Your task to perform on an android device: set the timer Image 0: 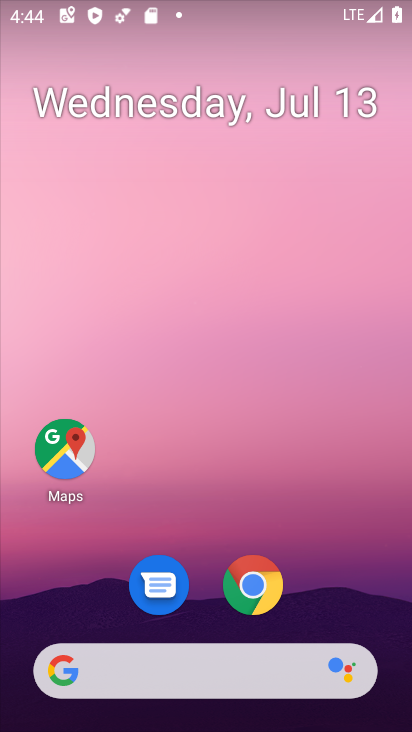
Step 0: press home button
Your task to perform on an android device: set the timer Image 1: 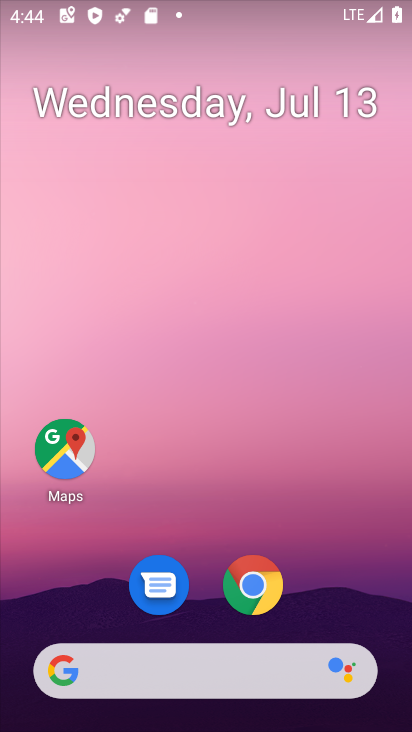
Step 1: drag from (312, 563) to (307, 89)
Your task to perform on an android device: set the timer Image 2: 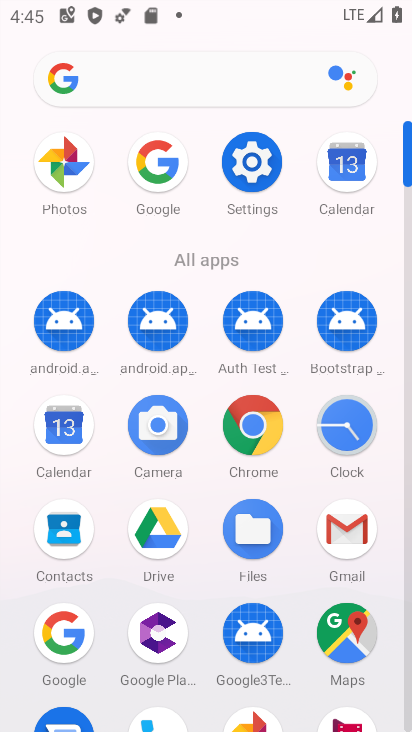
Step 2: click (347, 411)
Your task to perform on an android device: set the timer Image 3: 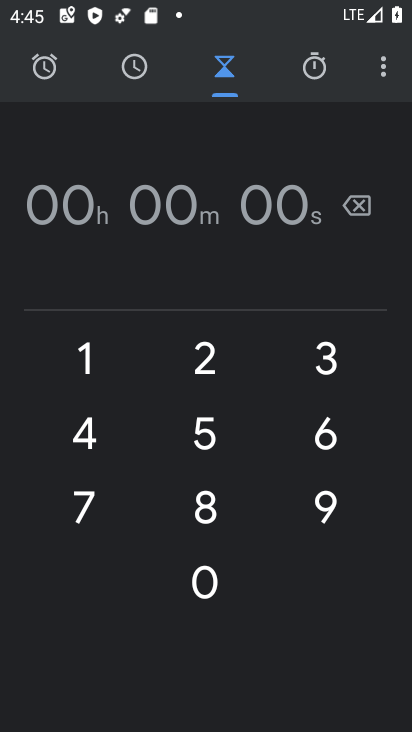
Step 3: click (84, 358)
Your task to perform on an android device: set the timer Image 4: 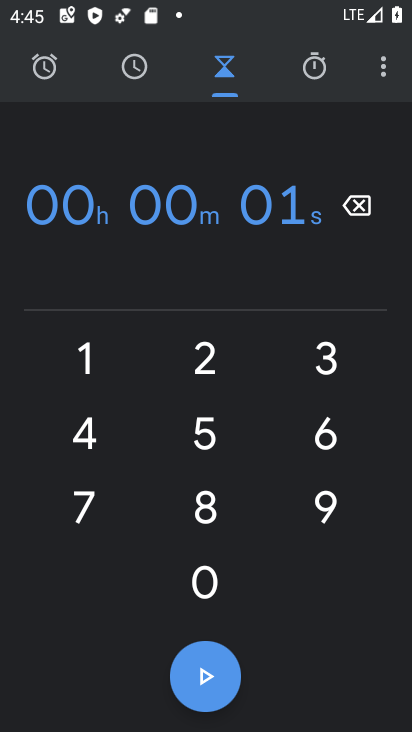
Step 4: task complete